Your task to perform on an android device: set the stopwatch Image 0: 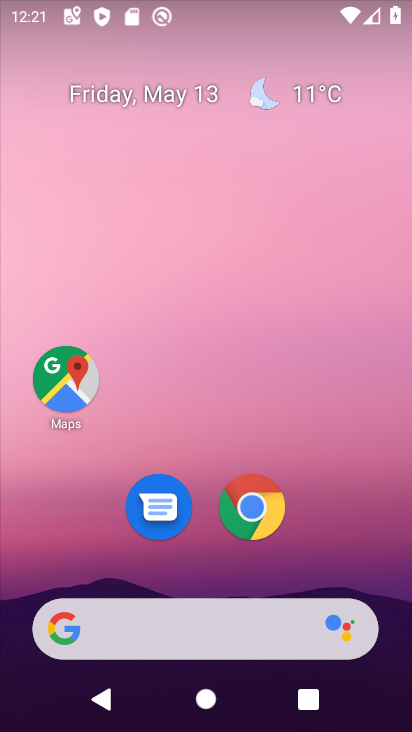
Step 0: drag from (215, 580) to (296, 29)
Your task to perform on an android device: set the stopwatch Image 1: 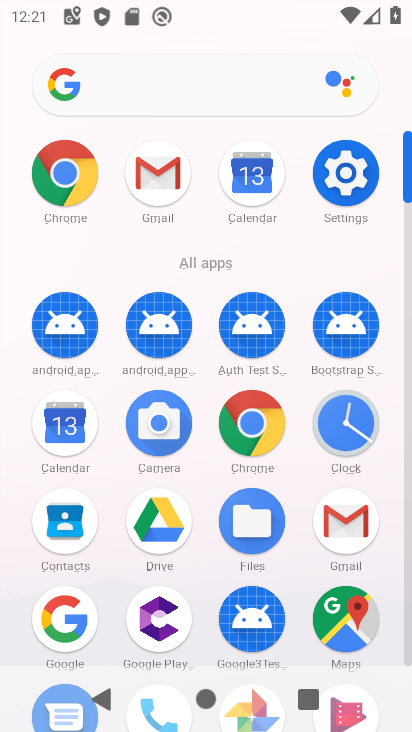
Step 1: click (364, 403)
Your task to perform on an android device: set the stopwatch Image 2: 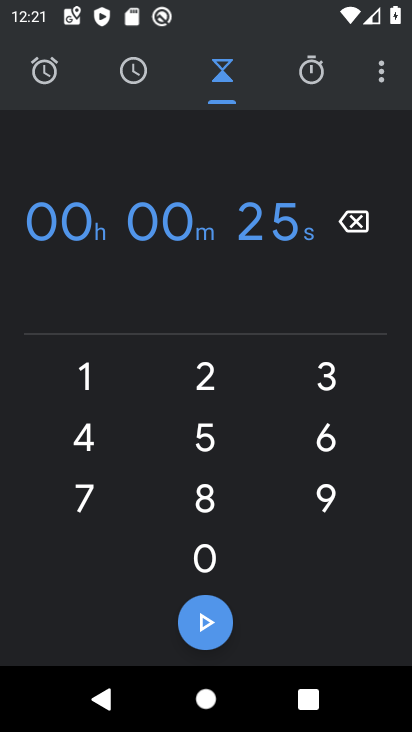
Step 2: click (380, 79)
Your task to perform on an android device: set the stopwatch Image 3: 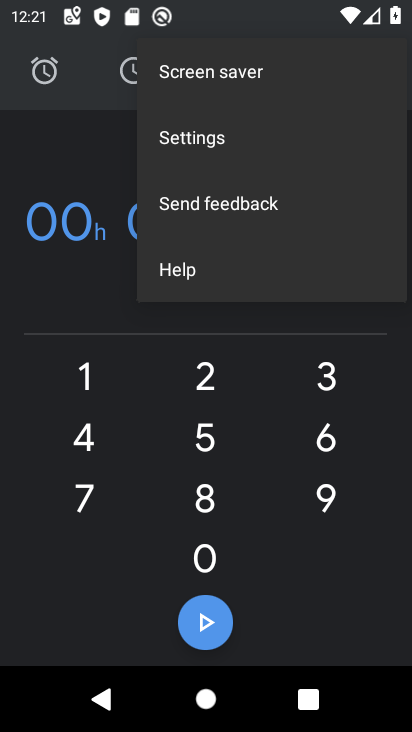
Step 3: click (47, 148)
Your task to perform on an android device: set the stopwatch Image 4: 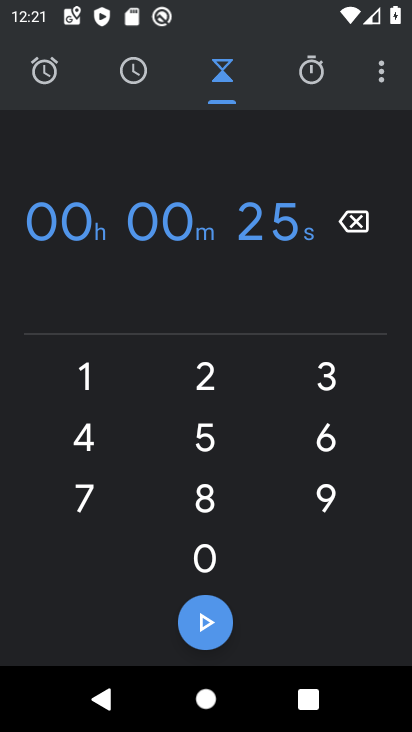
Step 4: click (309, 85)
Your task to perform on an android device: set the stopwatch Image 5: 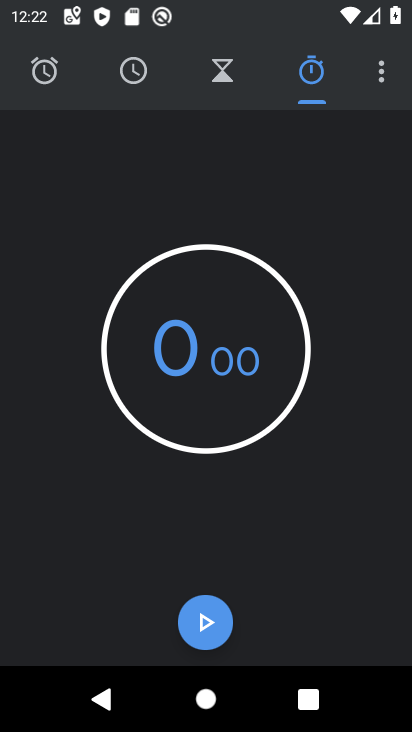
Step 5: task complete